Your task to perform on an android device: Go to Maps Image 0: 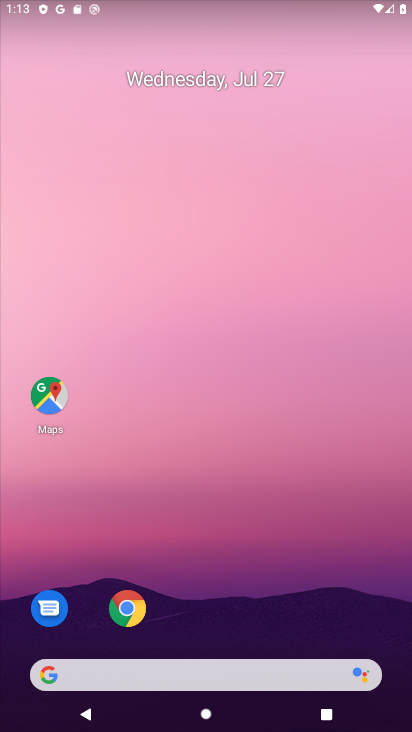
Step 0: click (47, 406)
Your task to perform on an android device: Go to Maps Image 1: 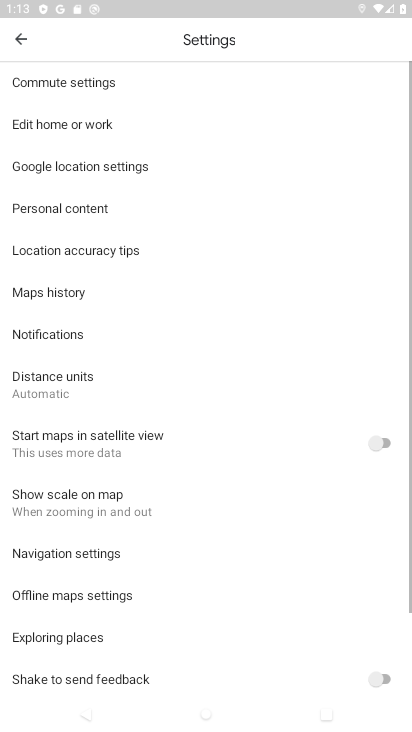
Step 1: task complete